Your task to perform on an android device: change your default location settings in chrome Image 0: 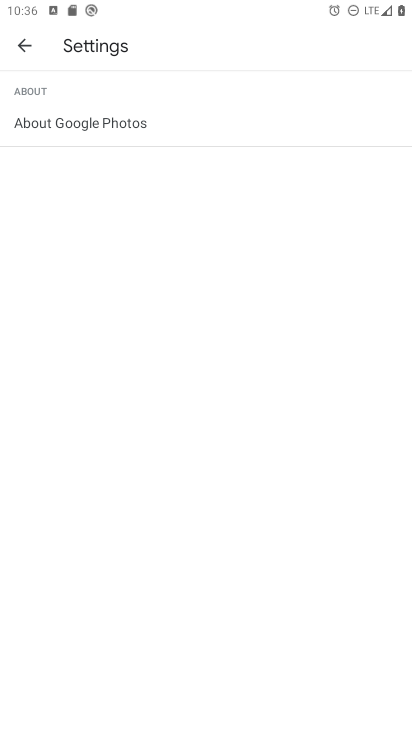
Step 0: press home button
Your task to perform on an android device: change your default location settings in chrome Image 1: 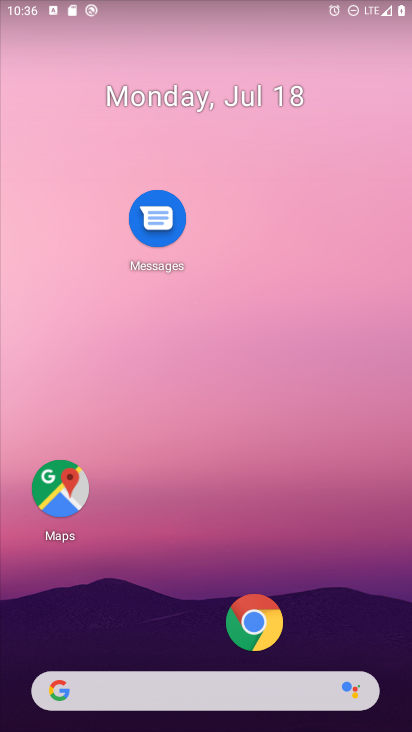
Step 1: drag from (234, 651) to (317, 3)
Your task to perform on an android device: change your default location settings in chrome Image 2: 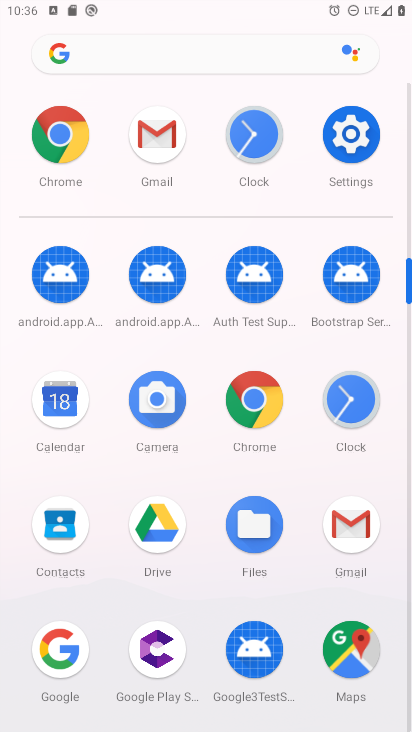
Step 2: click (266, 392)
Your task to perform on an android device: change your default location settings in chrome Image 3: 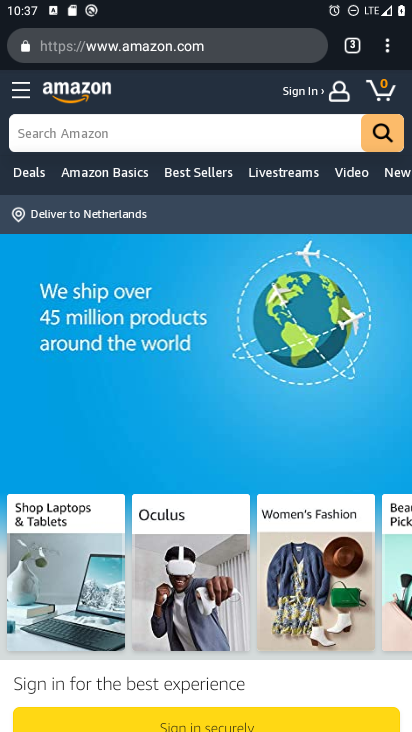
Step 3: click (388, 45)
Your task to perform on an android device: change your default location settings in chrome Image 4: 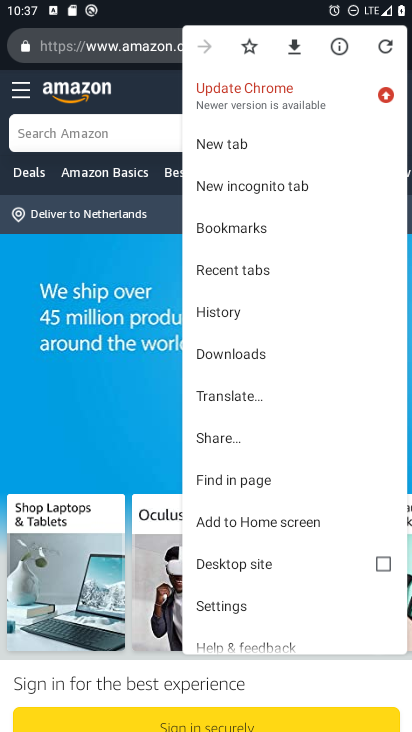
Step 4: click (244, 607)
Your task to perform on an android device: change your default location settings in chrome Image 5: 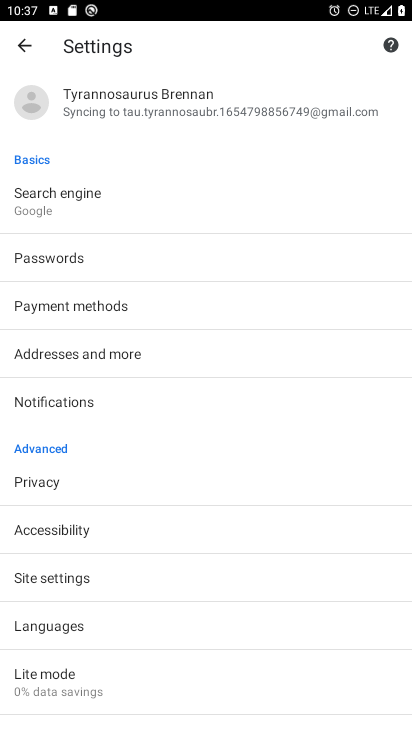
Step 5: drag from (108, 609) to (160, 368)
Your task to perform on an android device: change your default location settings in chrome Image 6: 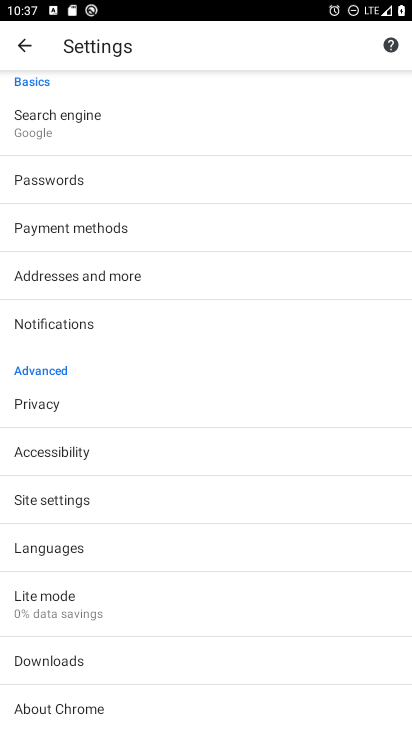
Step 6: click (66, 502)
Your task to perform on an android device: change your default location settings in chrome Image 7: 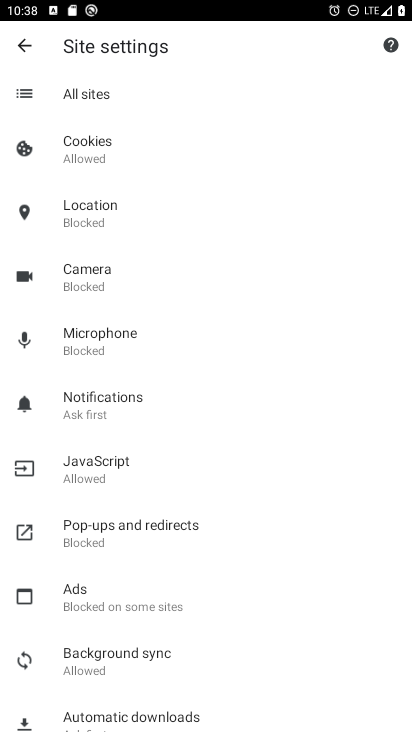
Step 7: click (106, 213)
Your task to perform on an android device: change your default location settings in chrome Image 8: 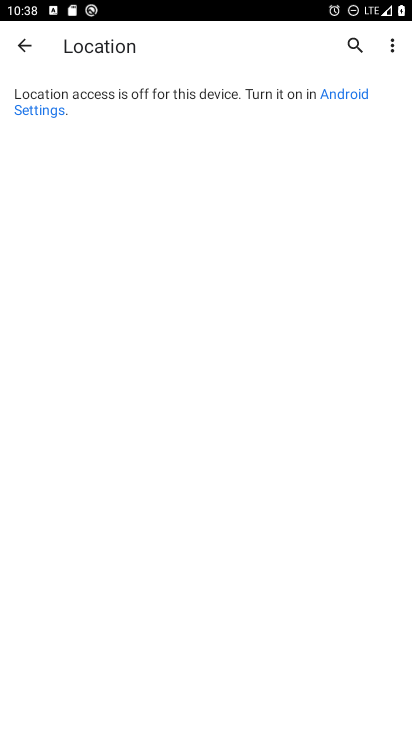
Step 8: task complete